Your task to perform on an android device: open chrome and create a bookmark for the current page Image 0: 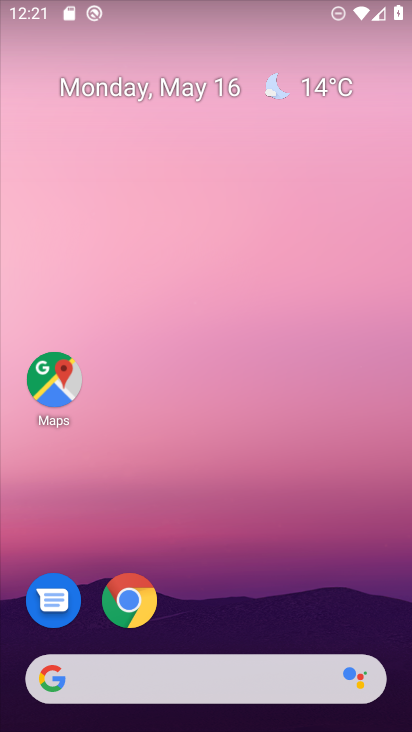
Step 0: press home button
Your task to perform on an android device: open chrome and create a bookmark for the current page Image 1: 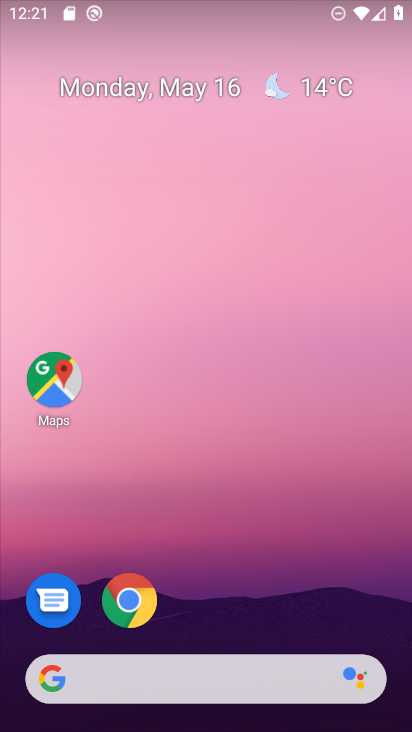
Step 1: drag from (223, 639) to (243, 67)
Your task to perform on an android device: open chrome and create a bookmark for the current page Image 2: 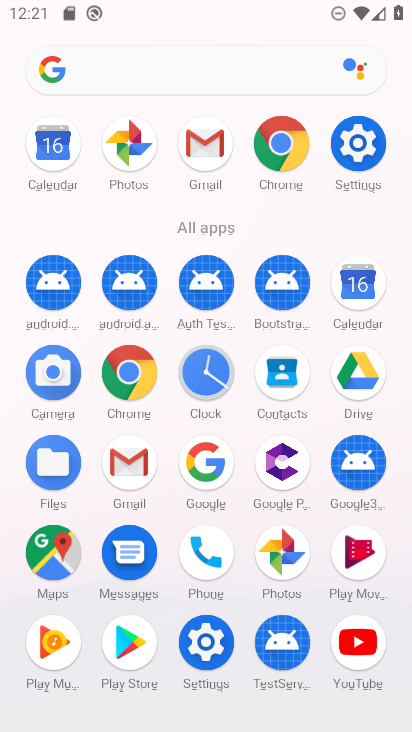
Step 2: click (281, 138)
Your task to perform on an android device: open chrome and create a bookmark for the current page Image 3: 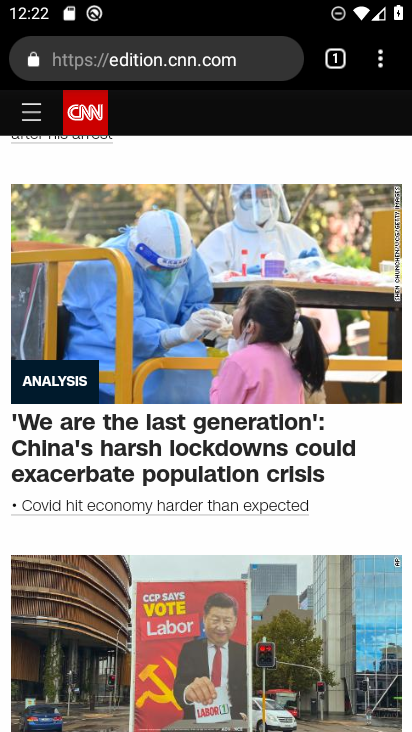
Step 3: click (386, 60)
Your task to perform on an android device: open chrome and create a bookmark for the current page Image 4: 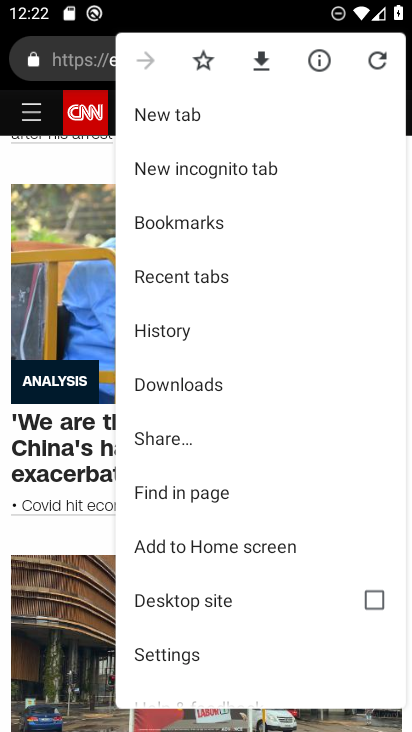
Step 4: click (213, 55)
Your task to perform on an android device: open chrome and create a bookmark for the current page Image 5: 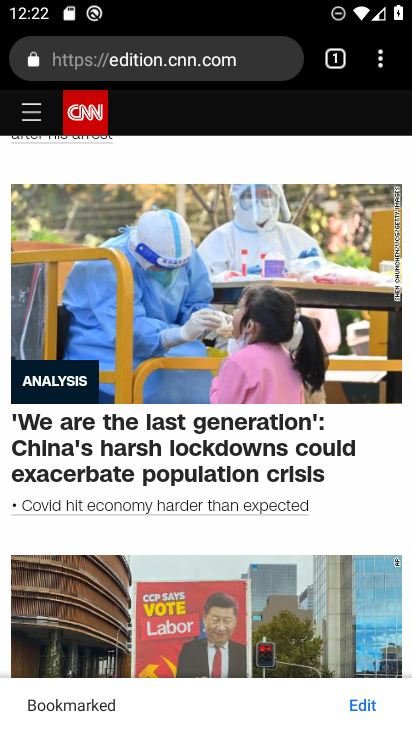
Step 5: task complete